Your task to perform on an android device: delete location history Image 0: 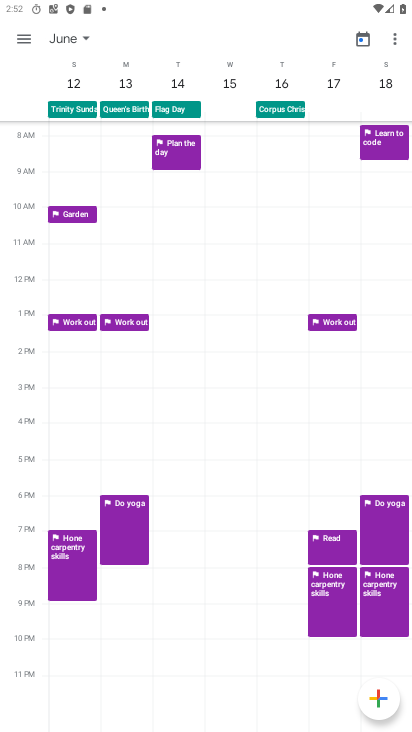
Step 0: press home button
Your task to perform on an android device: delete location history Image 1: 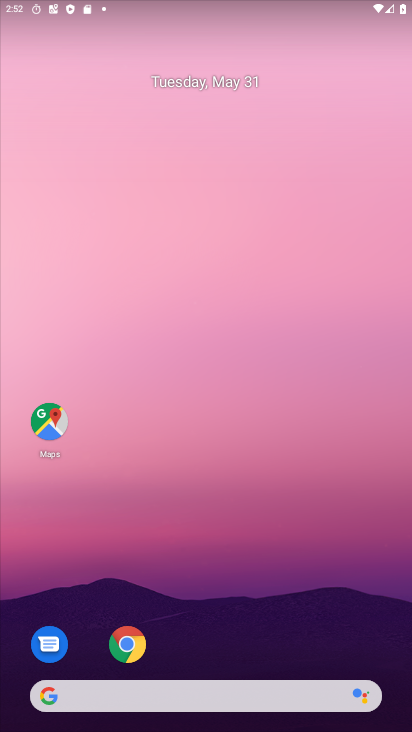
Step 1: click (42, 414)
Your task to perform on an android device: delete location history Image 2: 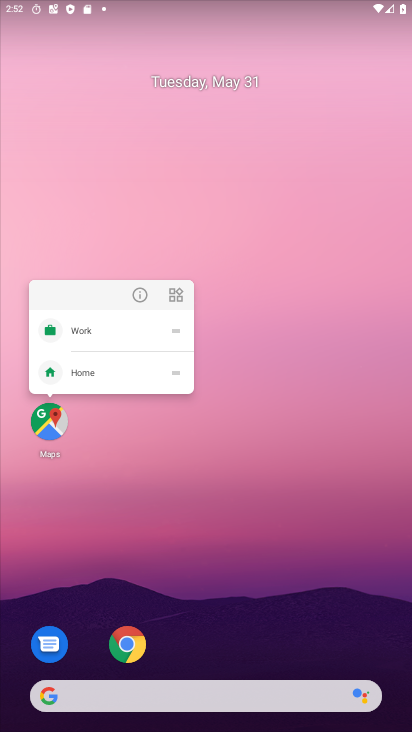
Step 2: click (42, 414)
Your task to perform on an android device: delete location history Image 3: 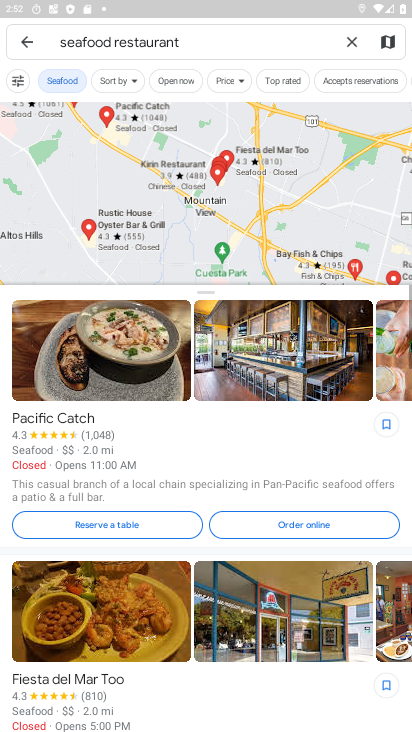
Step 3: click (20, 44)
Your task to perform on an android device: delete location history Image 4: 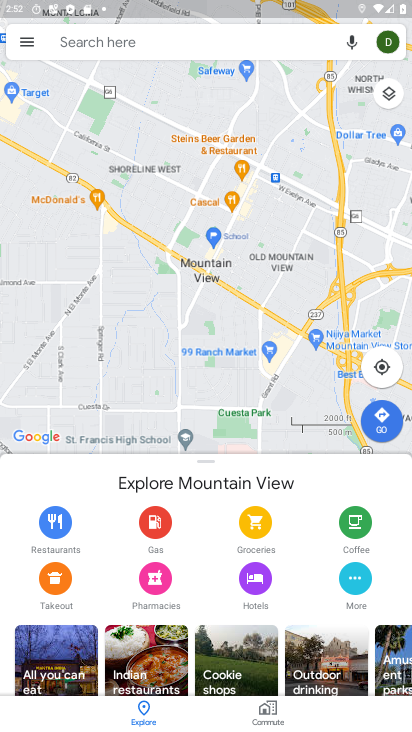
Step 4: click (26, 36)
Your task to perform on an android device: delete location history Image 5: 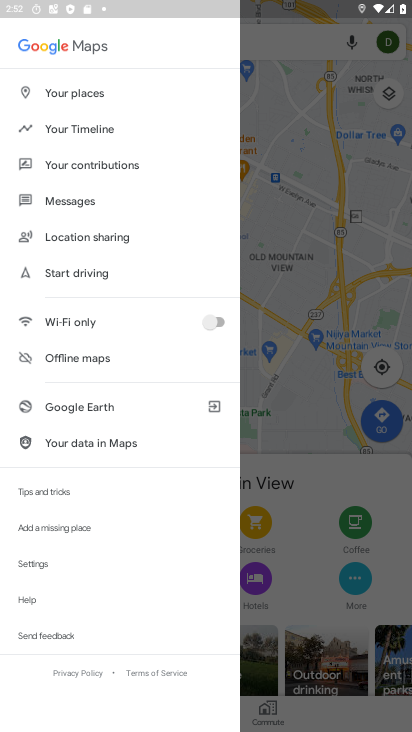
Step 5: click (46, 123)
Your task to perform on an android device: delete location history Image 6: 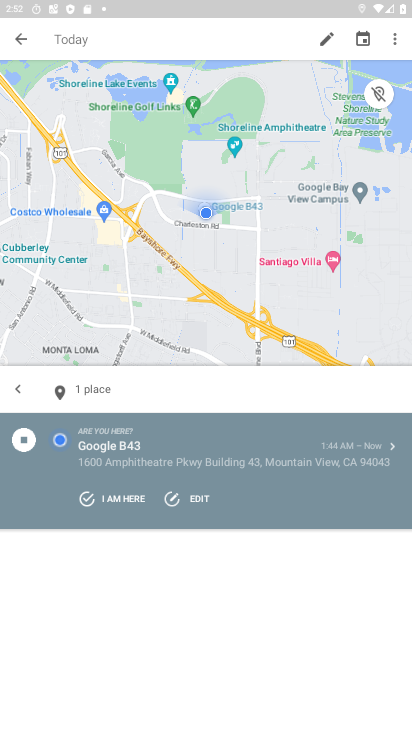
Step 6: click (392, 38)
Your task to perform on an android device: delete location history Image 7: 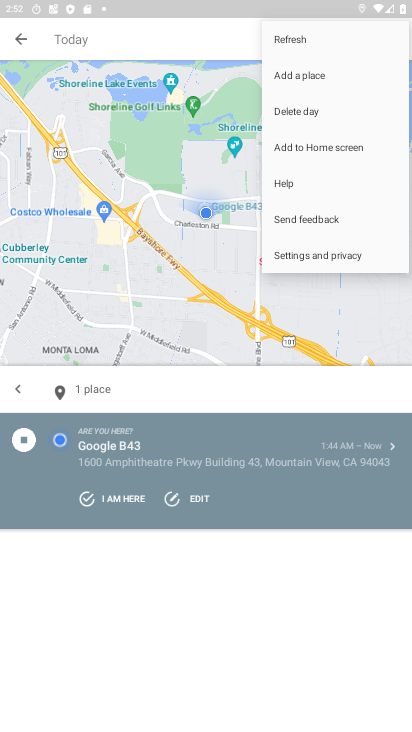
Step 7: click (293, 250)
Your task to perform on an android device: delete location history Image 8: 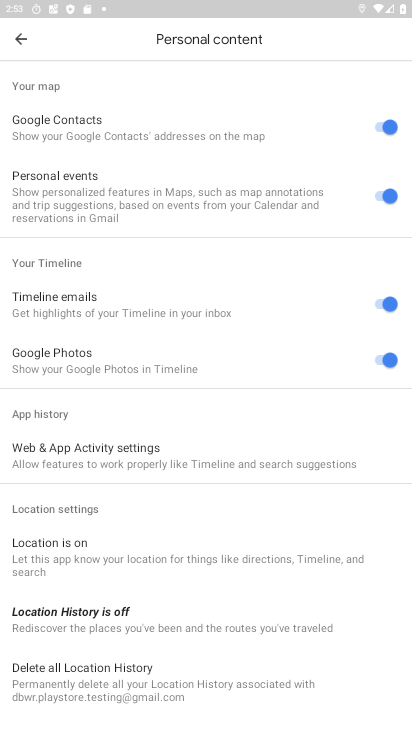
Step 8: click (50, 672)
Your task to perform on an android device: delete location history Image 9: 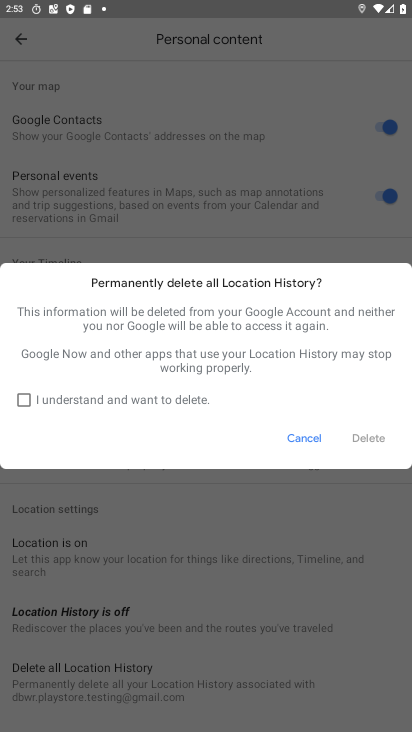
Step 9: click (19, 394)
Your task to perform on an android device: delete location history Image 10: 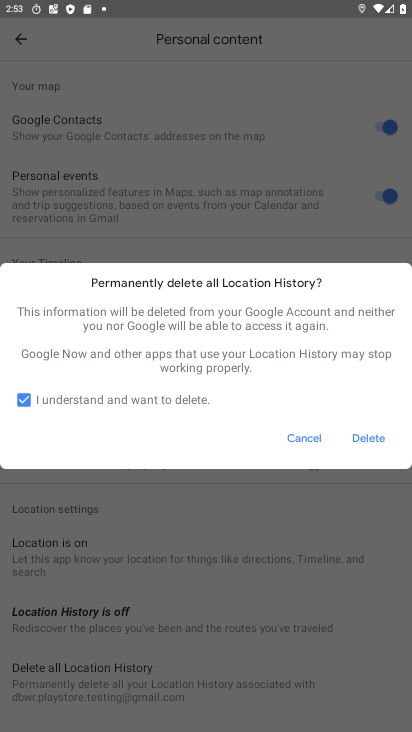
Step 10: click (370, 435)
Your task to perform on an android device: delete location history Image 11: 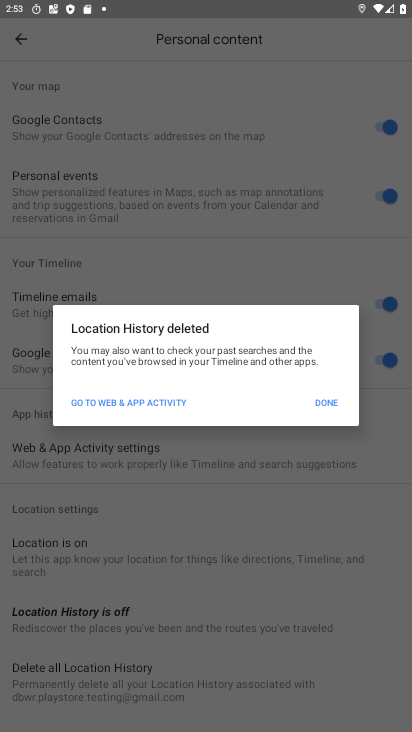
Step 11: click (318, 403)
Your task to perform on an android device: delete location history Image 12: 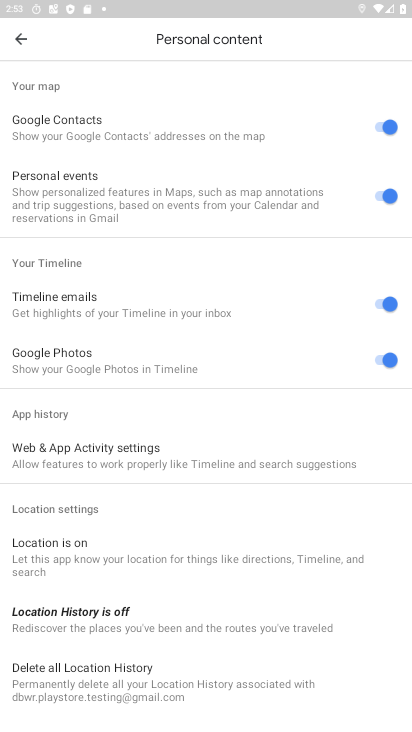
Step 12: task complete